Your task to perform on an android device: open chrome and create a bookmark for the current page Image 0: 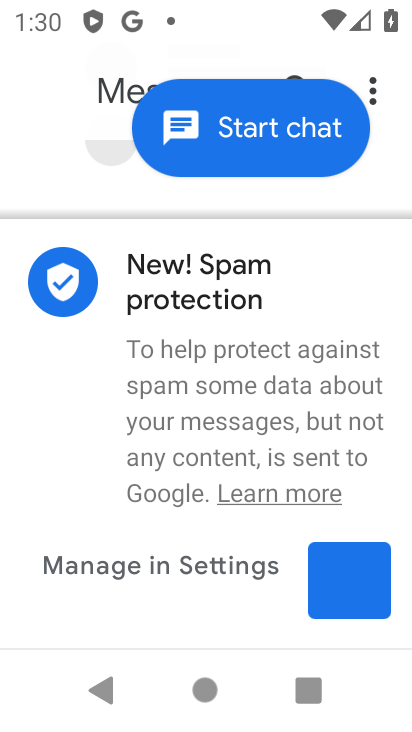
Step 0: press home button
Your task to perform on an android device: open chrome and create a bookmark for the current page Image 1: 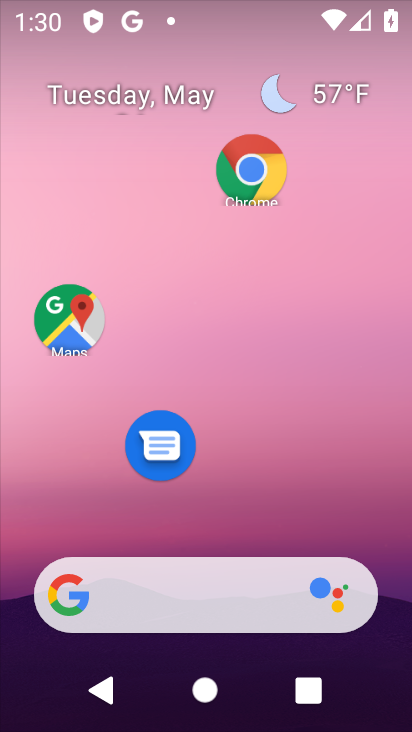
Step 1: drag from (220, 720) to (221, 151)
Your task to perform on an android device: open chrome and create a bookmark for the current page Image 2: 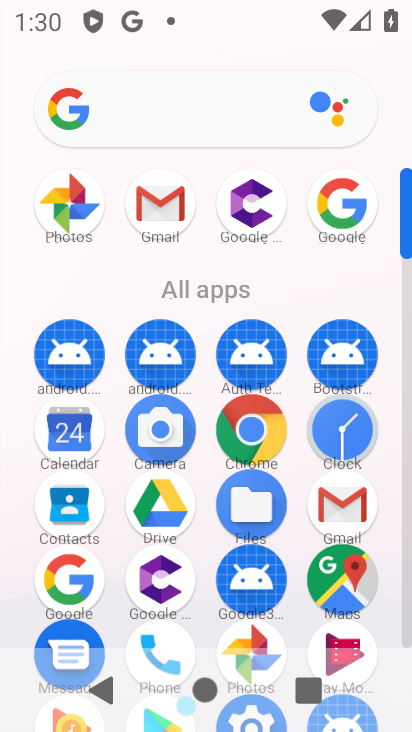
Step 2: click (245, 428)
Your task to perform on an android device: open chrome and create a bookmark for the current page Image 3: 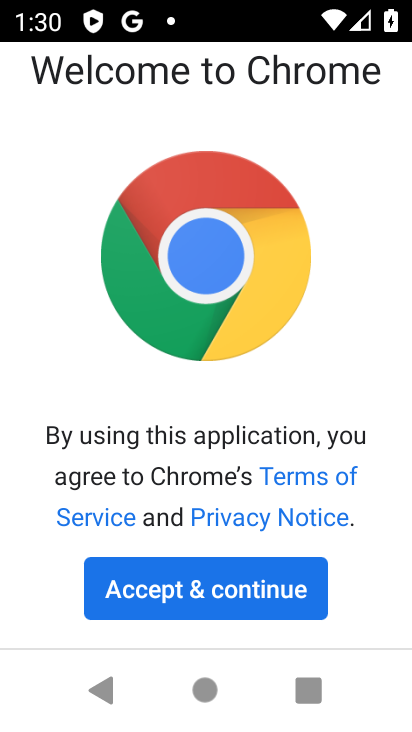
Step 3: click (263, 591)
Your task to perform on an android device: open chrome and create a bookmark for the current page Image 4: 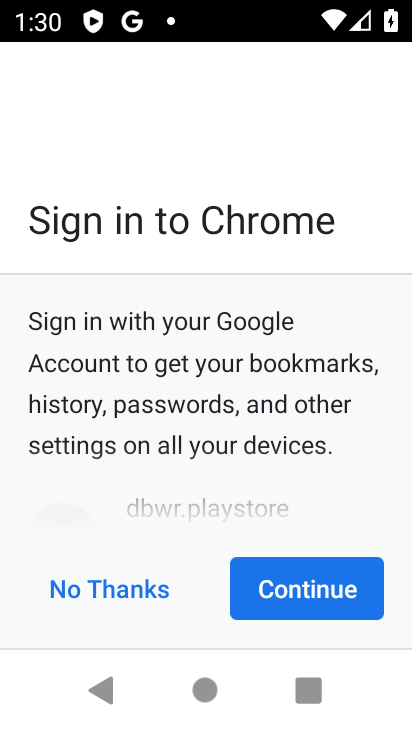
Step 4: click (328, 587)
Your task to perform on an android device: open chrome and create a bookmark for the current page Image 5: 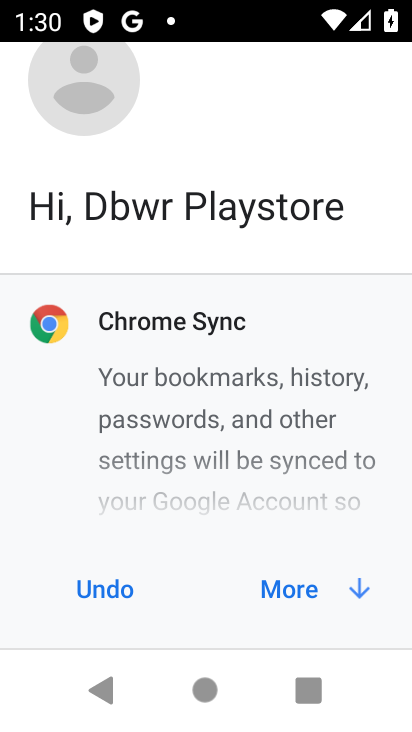
Step 5: click (294, 587)
Your task to perform on an android device: open chrome and create a bookmark for the current page Image 6: 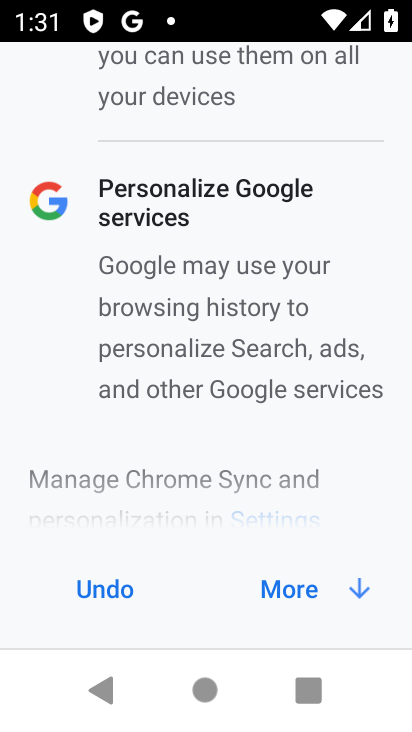
Step 6: click (294, 587)
Your task to perform on an android device: open chrome and create a bookmark for the current page Image 7: 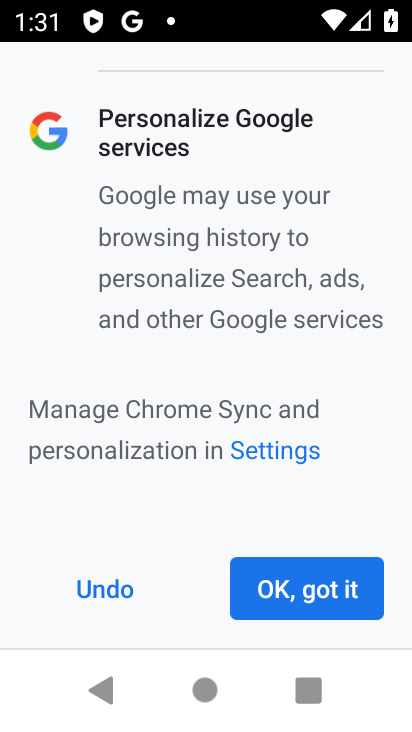
Step 7: click (294, 587)
Your task to perform on an android device: open chrome and create a bookmark for the current page Image 8: 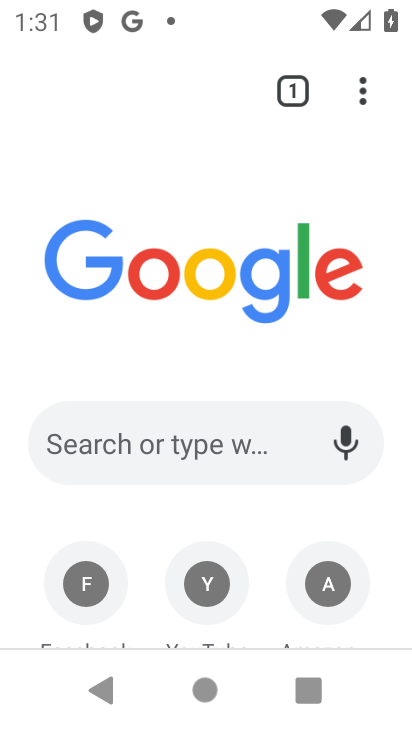
Step 8: click (362, 103)
Your task to perform on an android device: open chrome and create a bookmark for the current page Image 9: 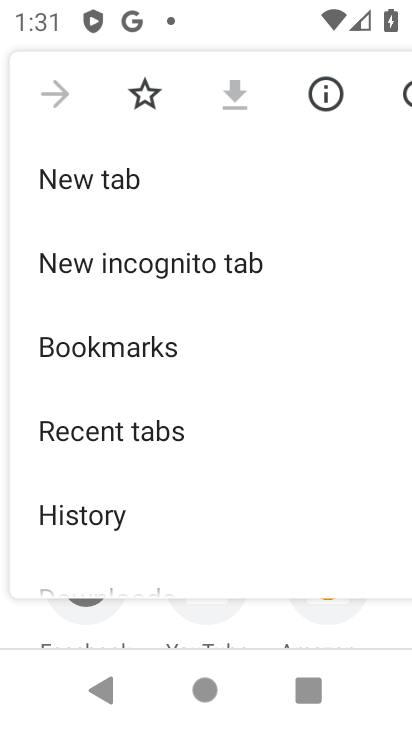
Step 9: click (142, 92)
Your task to perform on an android device: open chrome and create a bookmark for the current page Image 10: 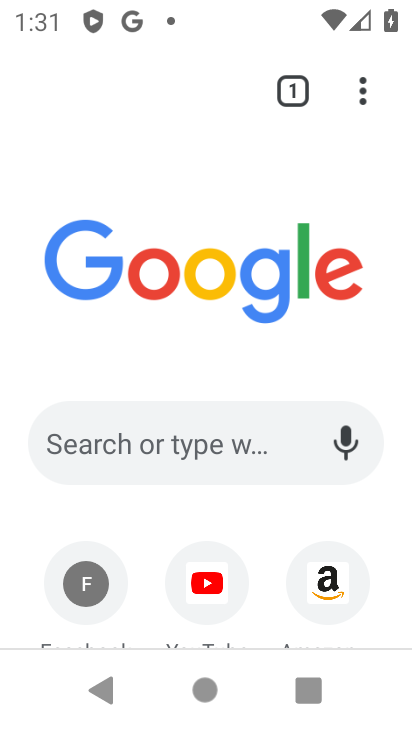
Step 10: task complete